Your task to perform on an android device: open chrome privacy settings Image 0: 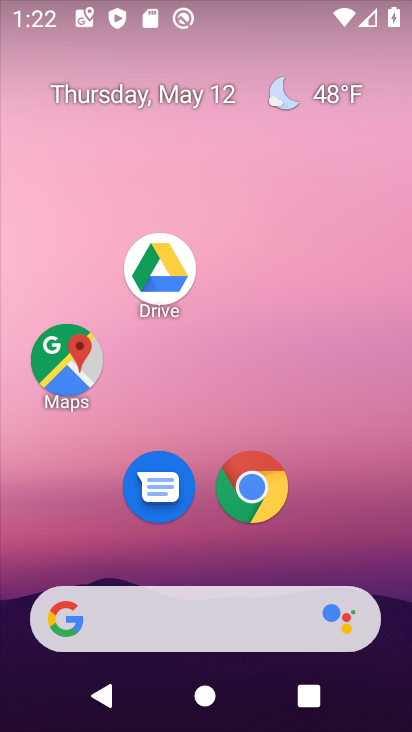
Step 0: click (246, 491)
Your task to perform on an android device: open chrome privacy settings Image 1: 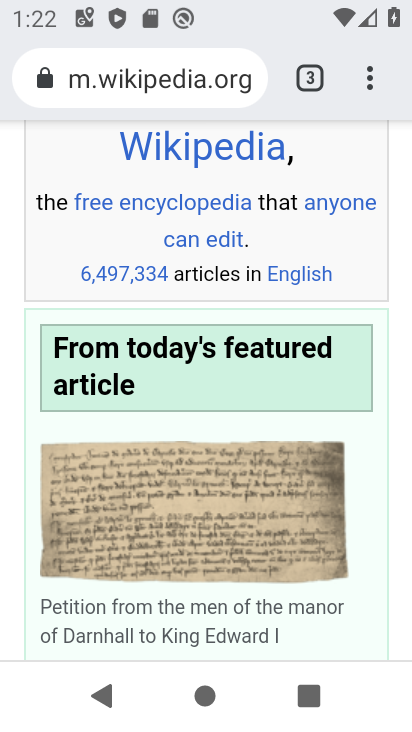
Step 1: click (366, 79)
Your task to perform on an android device: open chrome privacy settings Image 2: 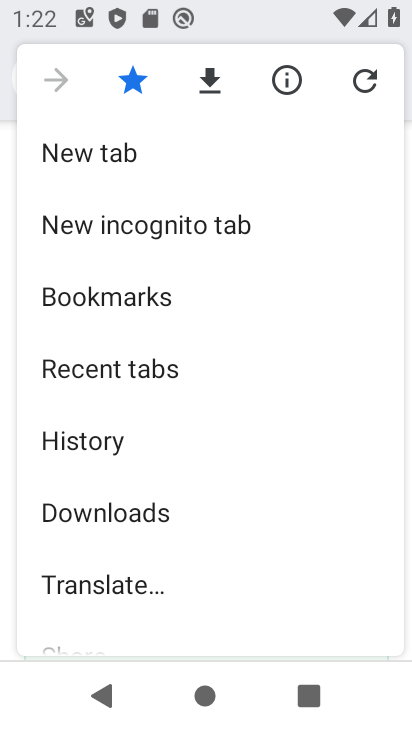
Step 2: drag from (239, 597) to (216, 213)
Your task to perform on an android device: open chrome privacy settings Image 3: 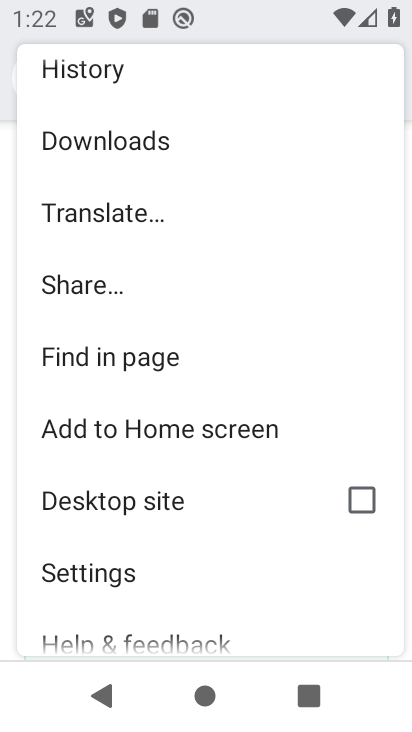
Step 3: click (81, 566)
Your task to perform on an android device: open chrome privacy settings Image 4: 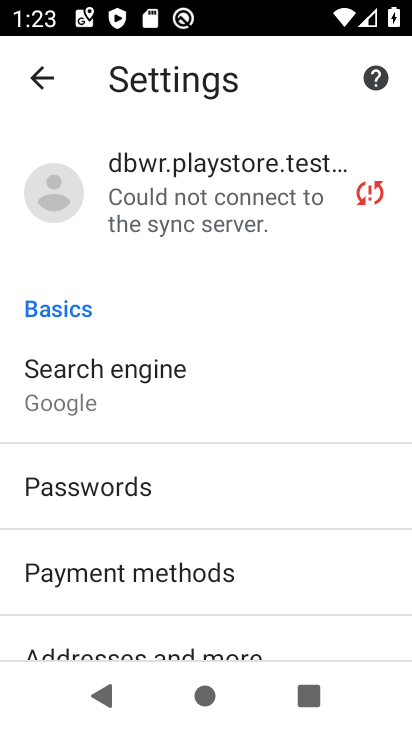
Step 4: drag from (143, 570) to (153, 247)
Your task to perform on an android device: open chrome privacy settings Image 5: 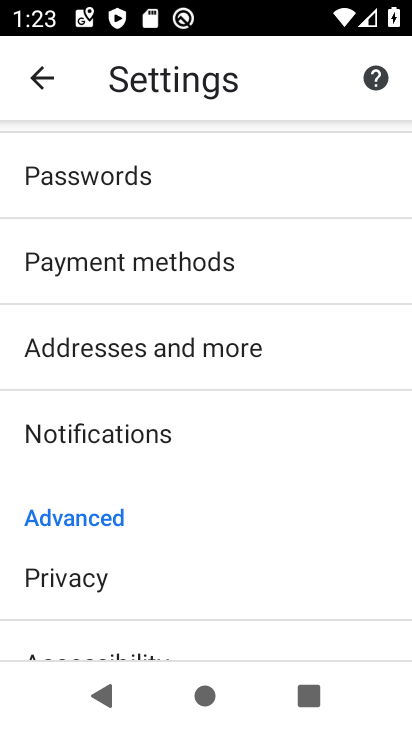
Step 5: click (84, 571)
Your task to perform on an android device: open chrome privacy settings Image 6: 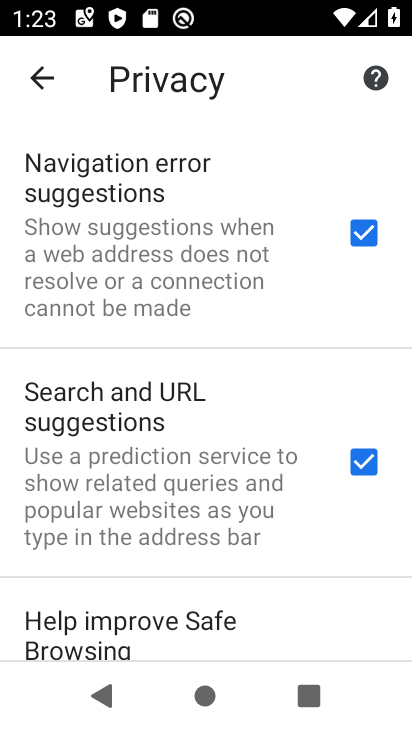
Step 6: task complete